Your task to perform on an android device: turn on javascript in the chrome app Image 0: 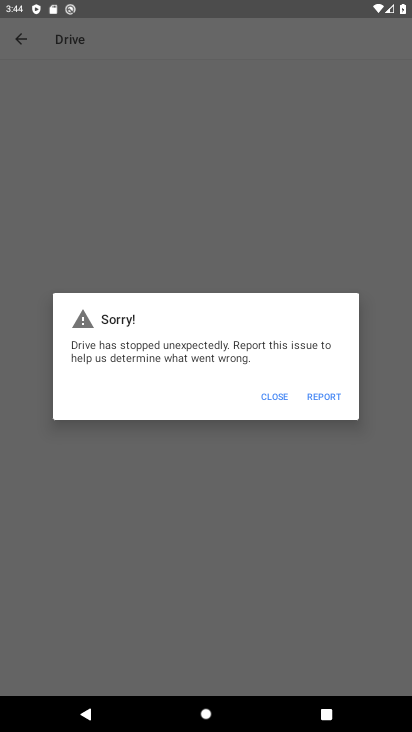
Step 0: press home button
Your task to perform on an android device: turn on javascript in the chrome app Image 1: 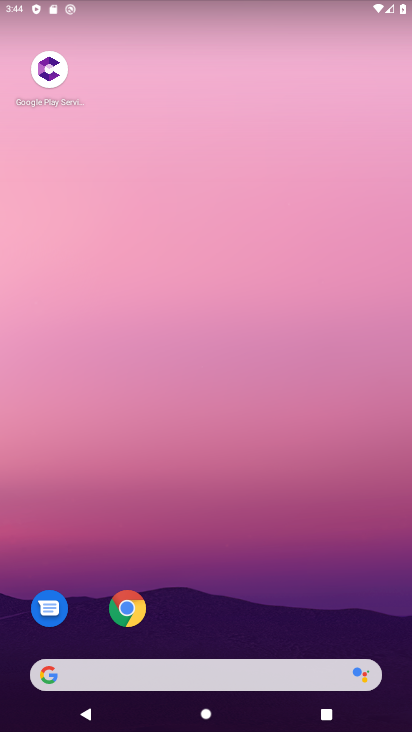
Step 1: drag from (290, 615) to (303, 31)
Your task to perform on an android device: turn on javascript in the chrome app Image 2: 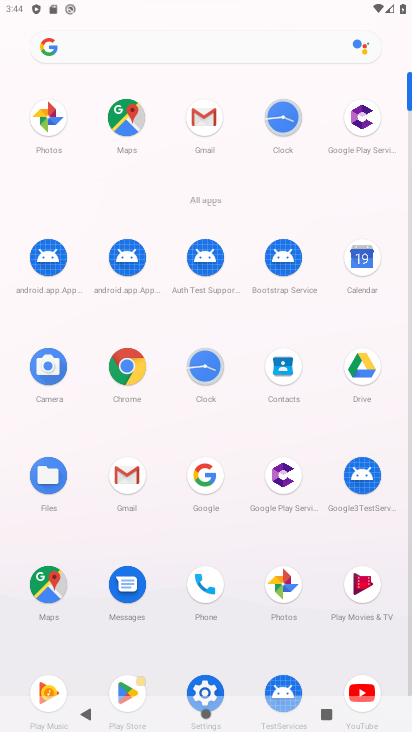
Step 2: click (126, 374)
Your task to perform on an android device: turn on javascript in the chrome app Image 3: 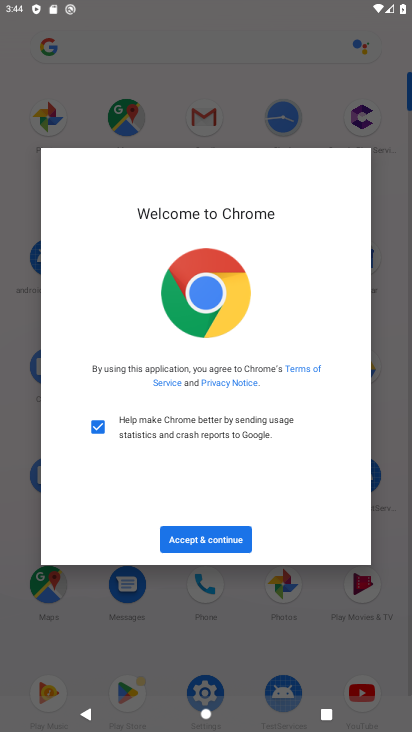
Step 3: click (206, 543)
Your task to perform on an android device: turn on javascript in the chrome app Image 4: 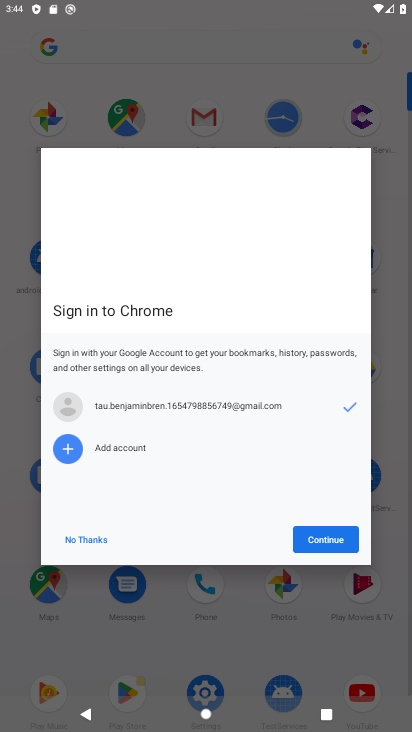
Step 4: click (312, 545)
Your task to perform on an android device: turn on javascript in the chrome app Image 5: 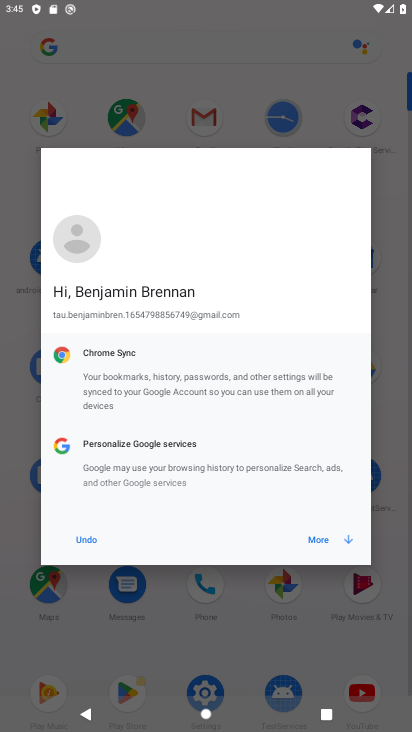
Step 5: click (344, 544)
Your task to perform on an android device: turn on javascript in the chrome app Image 6: 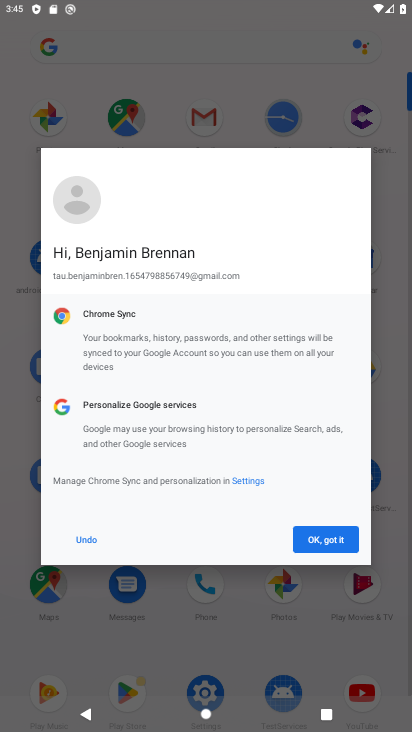
Step 6: click (333, 542)
Your task to perform on an android device: turn on javascript in the chrome app Image 7: 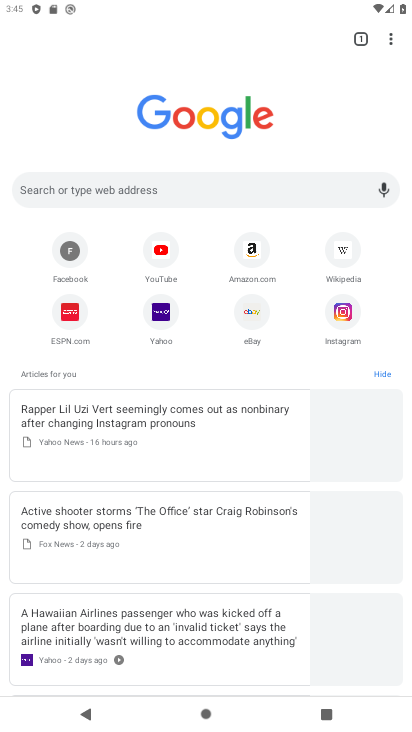
Step 7: click (388, 36)
Your task to perform on an android device: turn on javascript in the chrome app Image 8: 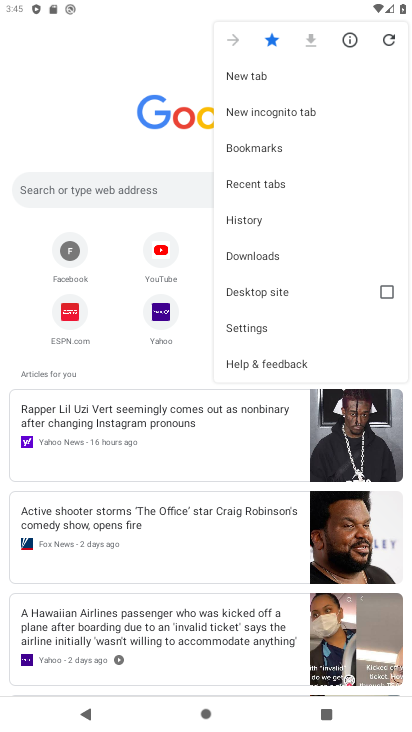
Step 8: click (264, 332)
Your task to perform on an android device: turn on javascript in the chrome app Image 9: 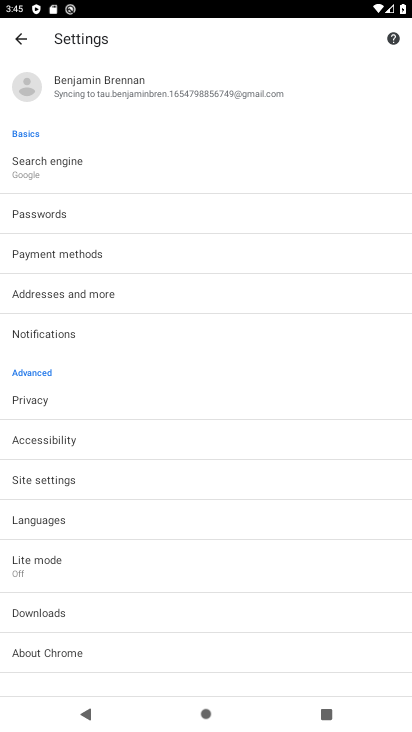
Step 9: click (107, 483)
Your task to perform on an android device: turn on javascript in the chrome app Image 10: 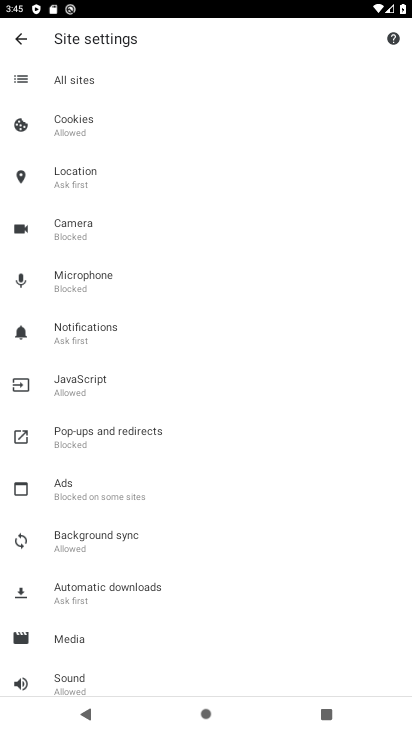
Step 10: click (95, 392)
Your task to perform on an android device: turn on javascript in the chrome app Image 11: 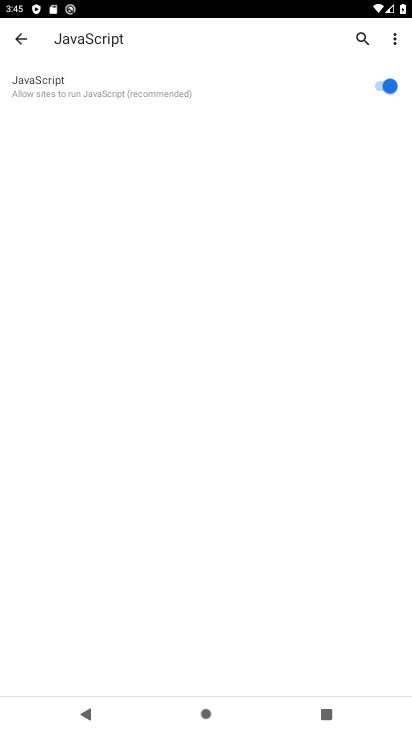
Step 11: task complete